Your task to perform on an android device: open chrome and create a bookmark for the current page Image 0: 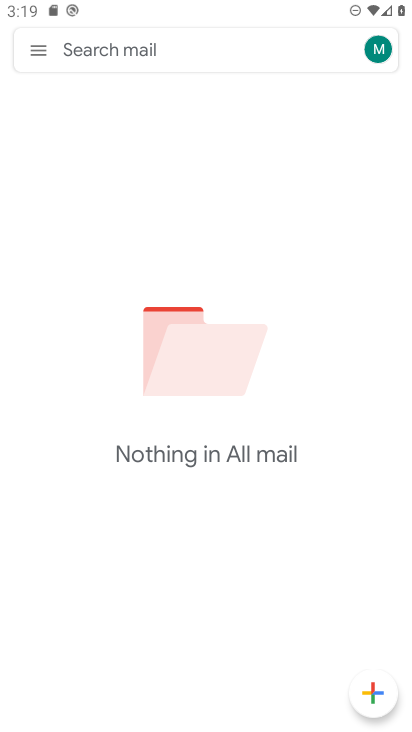
Step 0: press back button
Your task to perform on an android device: open chrome and create a bookmark for the current page Image 1: 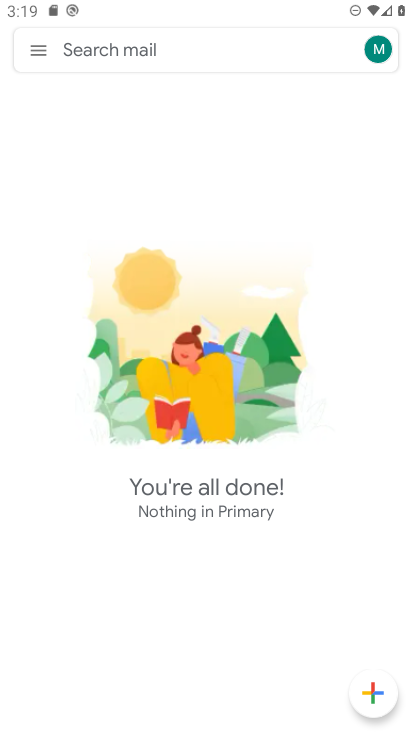
Step 1: press back button
Your task to perform on an android device: open chrome and create a bookmark for the current page Image 2: 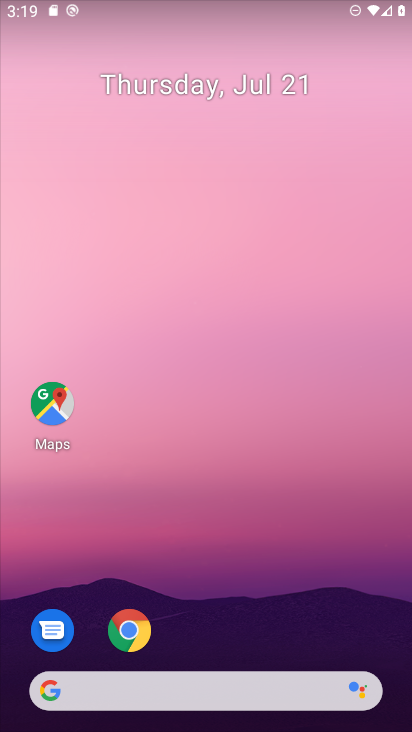
Step 2: click (129, 627)
Your task to perform on an android device: open chrome and create a bookmark for the current page Image 3: 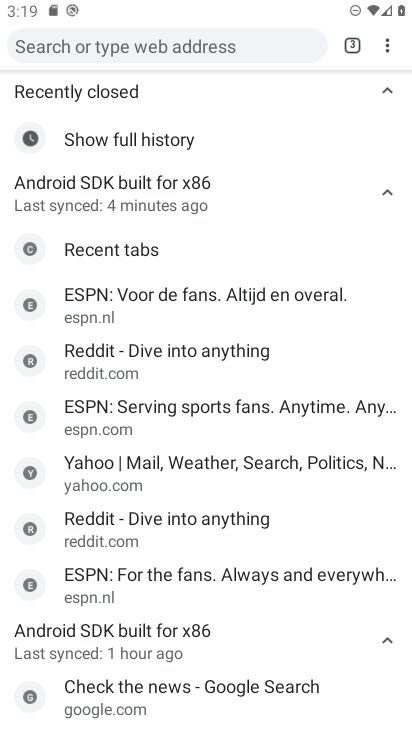
Step 3: task complete